Your task to perform on an android device: turn notification dots on Image 0: 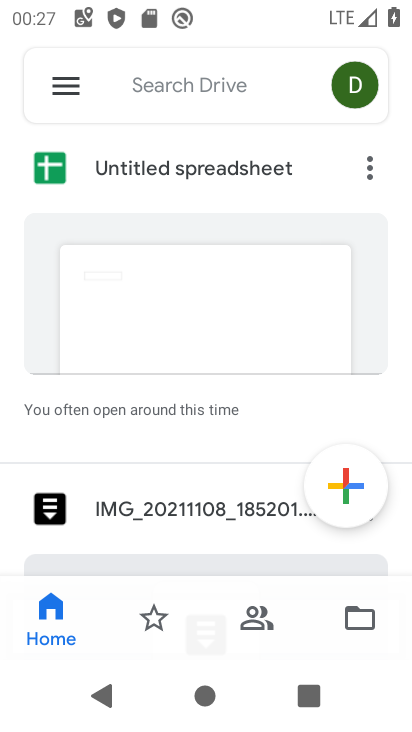
Step 0: drag from (209, 17) to (278, 594)
Your task to perform on an android device: turn notification dots on Image 1: 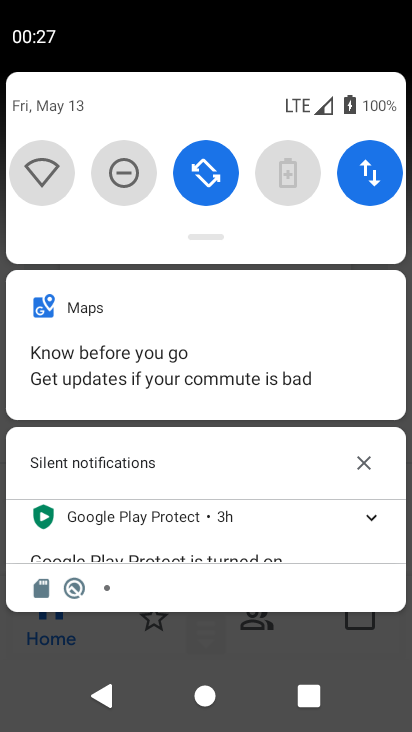
Step 1: drag from (236, 152) to (190, 569)
Your task to perform on an android device: turn notification dots on Image 2: 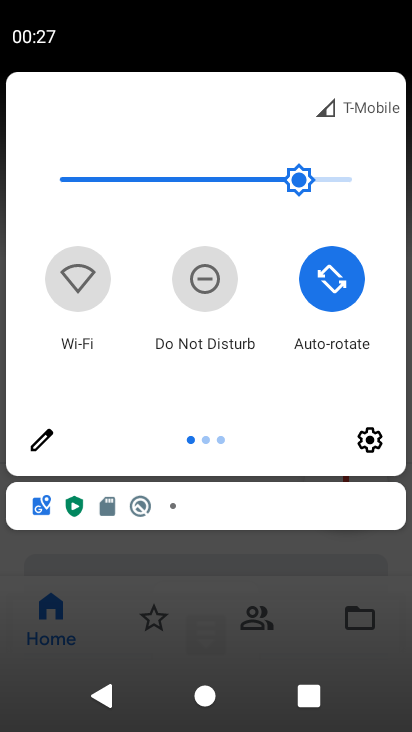
Step 2: click (372, 454)
Your task to perform on an android device: turn notification dots on Image 3: 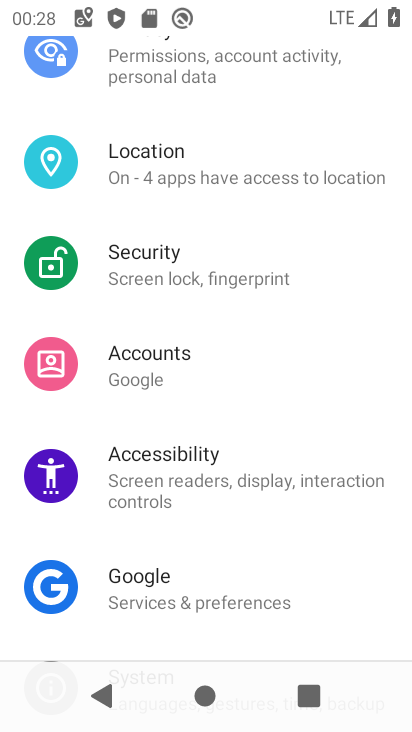
Step 3: drag from (196, 140) to (161, 729)
Your task to perform on an android device: turn notification dots on Image 4: 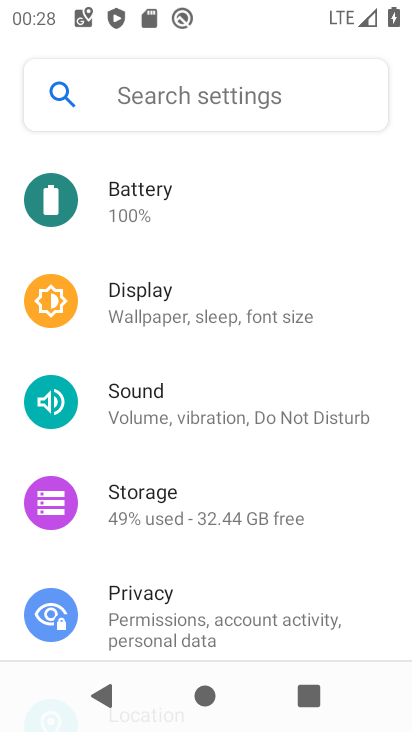
Step 4: drag from (245, 256) to (262, 696)
Your task to perform on an android device: turn notification dots on Image 5: 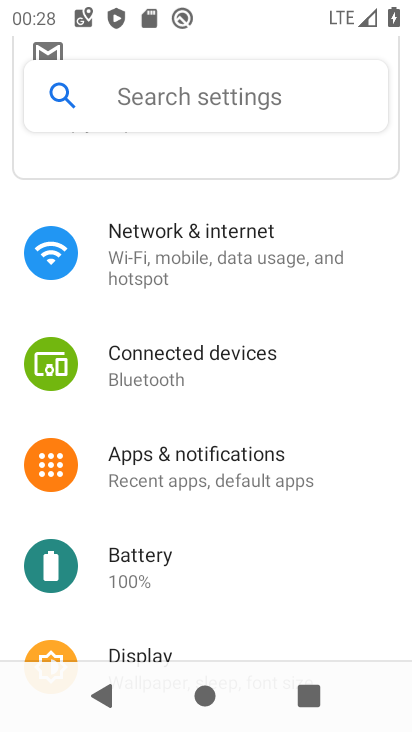
Step 5: click (198, 512)
Your task to perform on an android device: turn notification dots on Image 6: 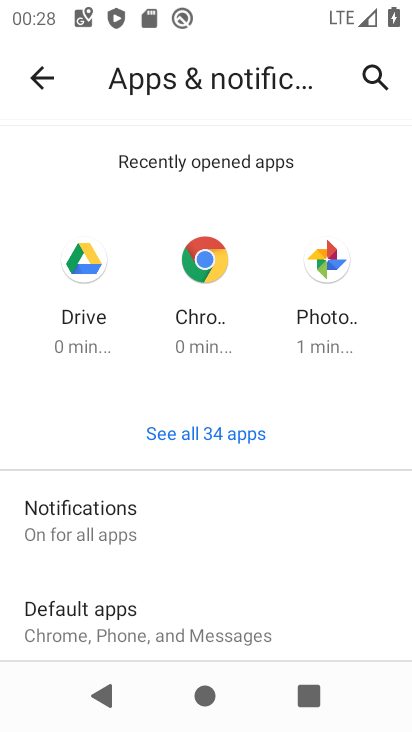
Step 6: click (198, 512)
Your task to perform on an android device: turn notification dots on Image 7: 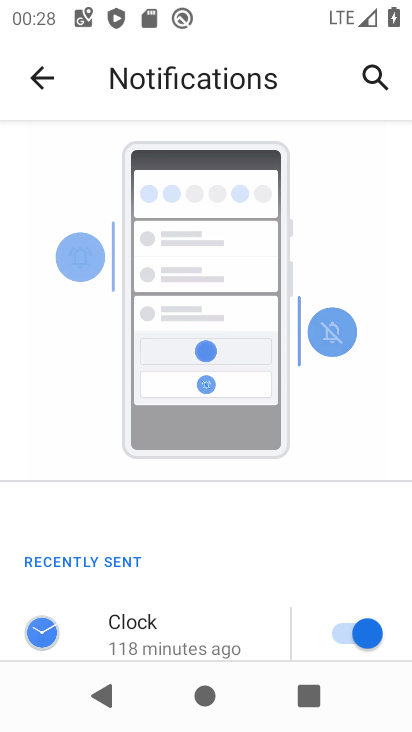
Step 7: drag from (153, 648) to (224, 71)
Your task to perform on an android device: turn notification dots on Image 8: 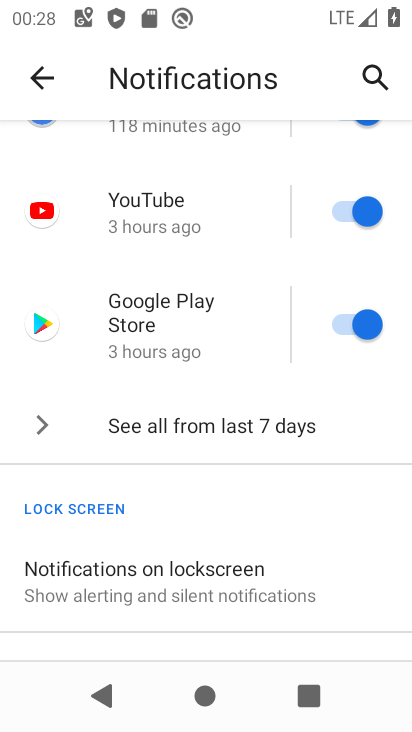
Step 8: drag from (160, 570) to (226, 7)
Your task to perform on an android device: turn notification dots on Image 9: 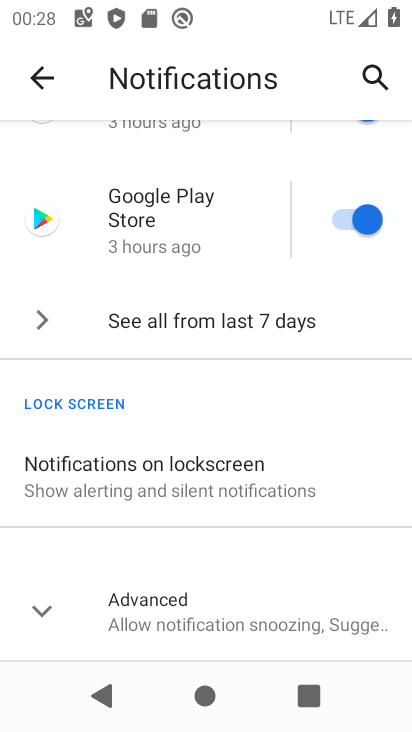
Step 9: click (239, 521)
Your task to perform on an android device: turn notification dots on Image 10: 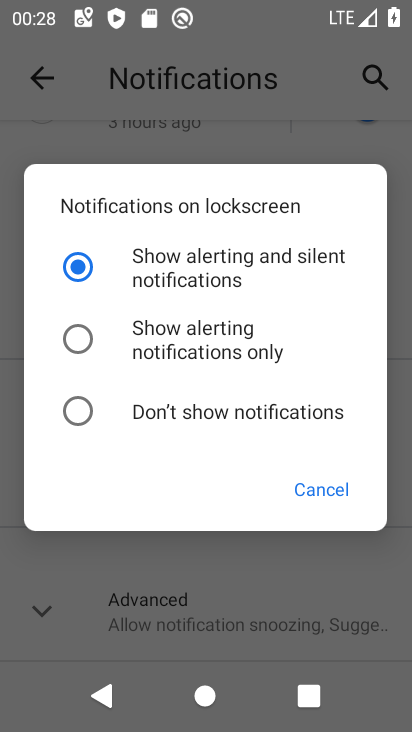
Step 10: click (171, 608)
Your task to perform on an android device: turn notification dots on Image 11: 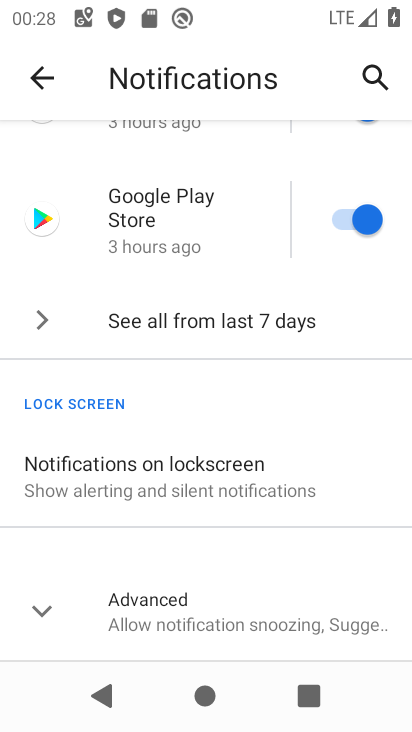
Step 11: click (171, 608)
Your task to perform on an android device: turn notification dots on Image 12: 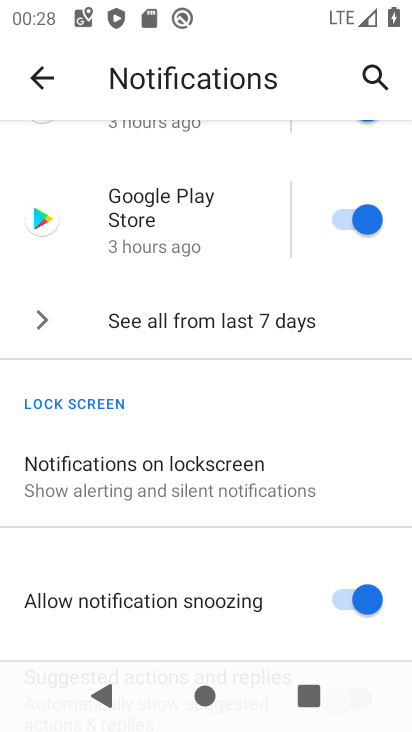
Step 12: click (171, 608)
Your task to perform on an android device: turn notification dots on Image 13: 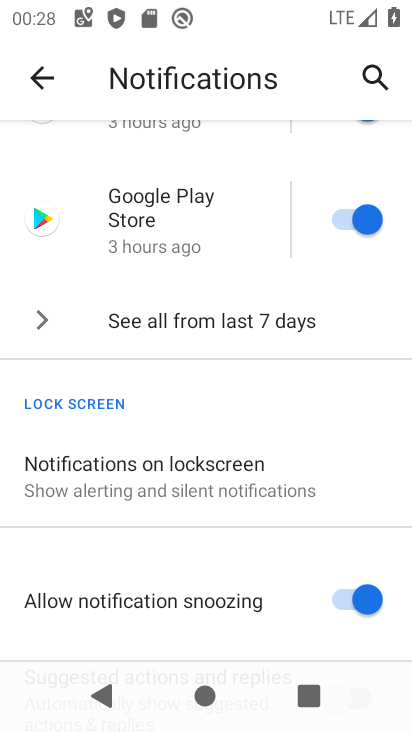
Step 13: drag from (171, 608) to (221, 70)
Your task to perform on an android device: turn notification dots on Image 14: 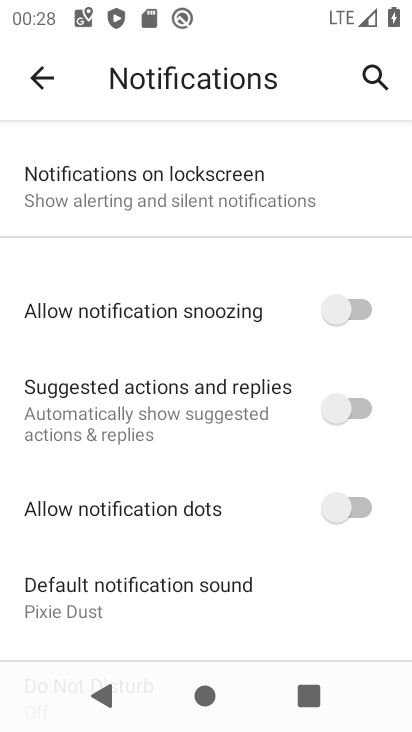
Step 14: click (344, 517)
Your task to perform on an android device: turn notification dots on Image 15: 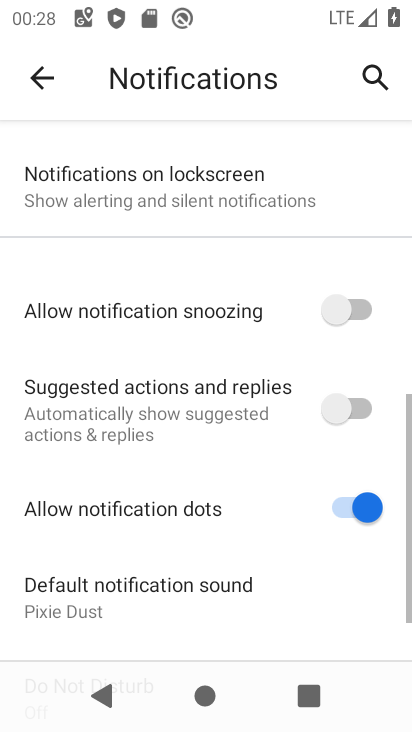
Step 15: task complete